Your task to perform on an android device: find which apps use the phone's location Image 0: 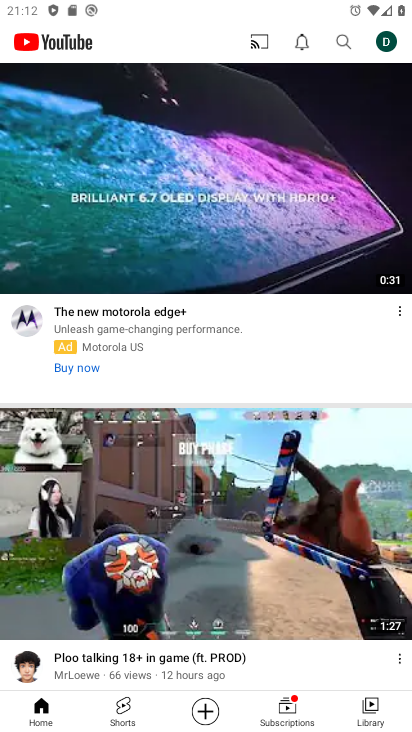
Step 0: press home button
Your task to perform on an android device: find which apps use the phone's location Image 1: 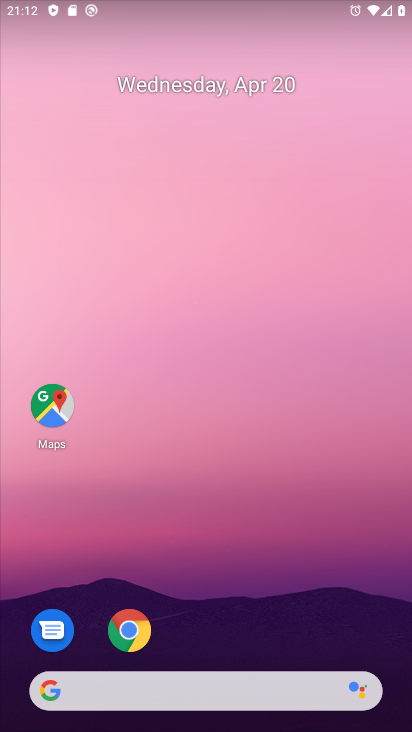
Step 1: drag from (248, 617) to (249, 91)
Your task to perform on an android device: find which apps use the phone's location Image 2: 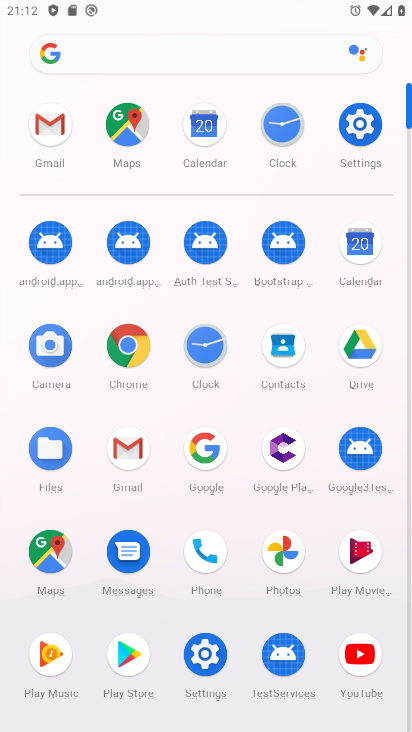
Step 2: click (354, 129)
Your task to perform on an android device: find which apps use the phone's location Image 3: 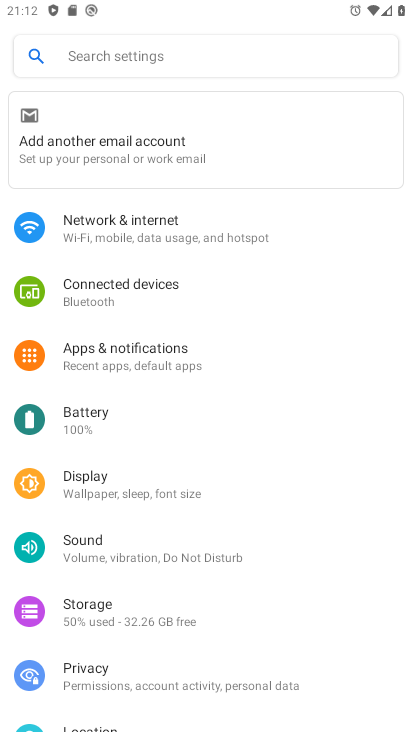
Step 3: drag from (245, 590) to (284, 211)
Your task to perform on an android device: find which apps use the phone's location Image 4: 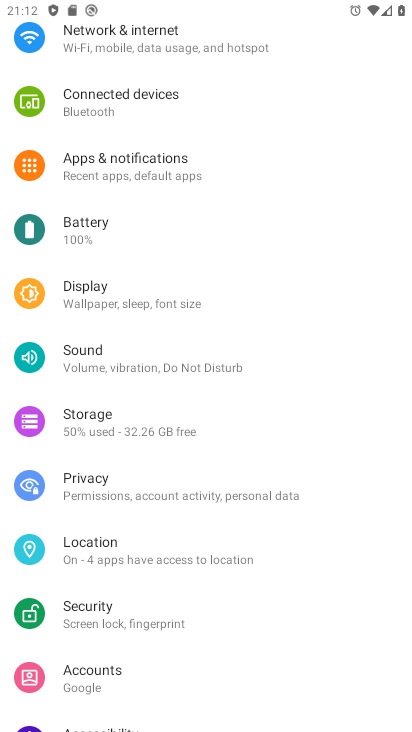
Step 4: click (123, 541)
Your task to perform on an android device: find which apps use the phone's location Image 5: 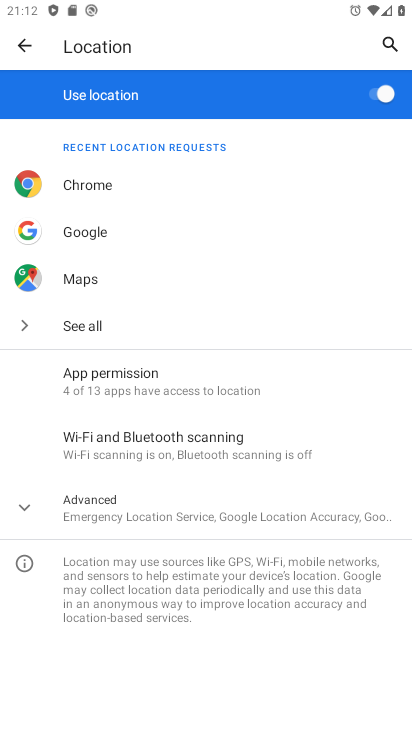
Step 5: click (136, 388)
Your task to perform on an android device: find which apps use the phone's location Image 6: 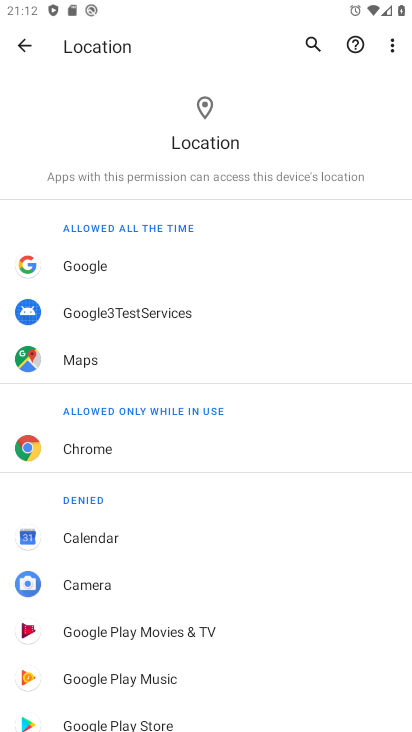
Step 6: task complete